Your task to perform on an android device: Go to Google maps Image 0: 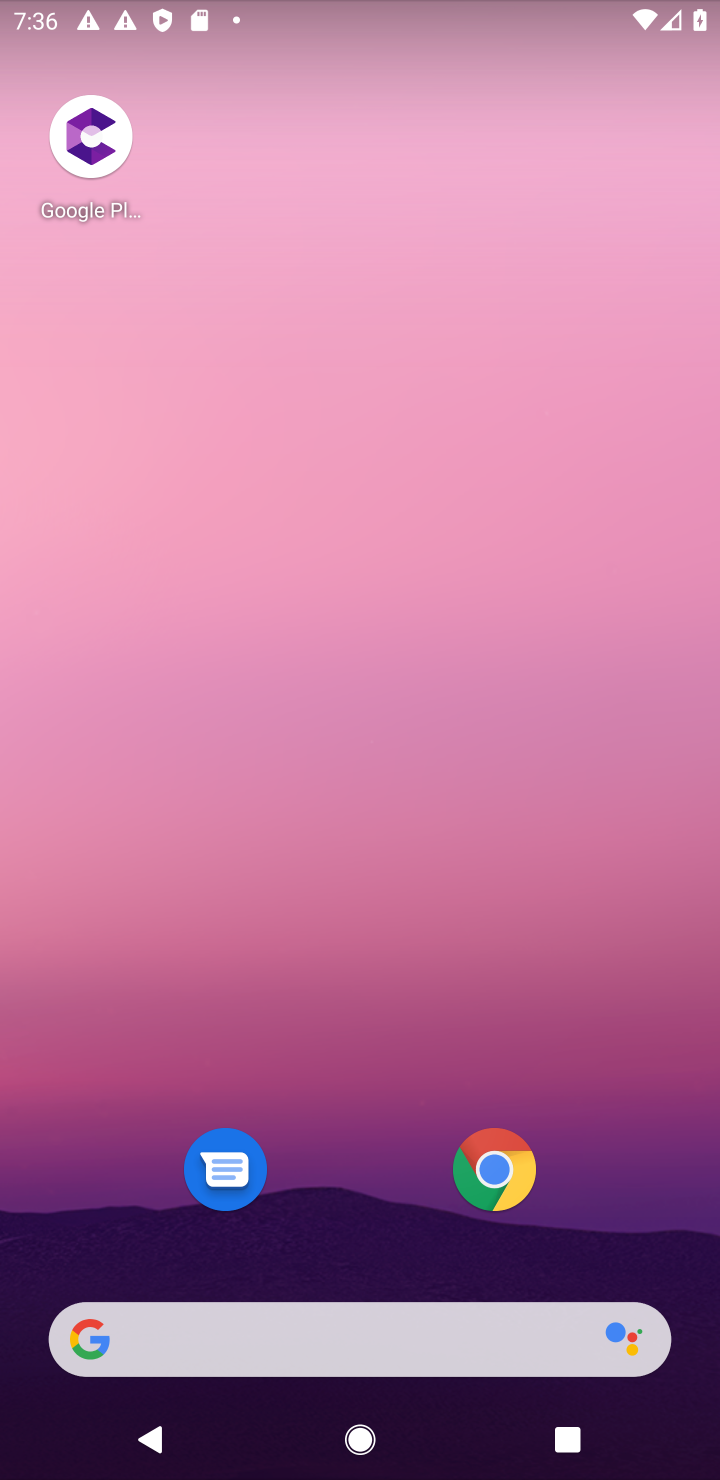
Step 0: drag from (350, 1002) to (339, 62)
Your task to perform on an android device: Go to Google maps Image 1: 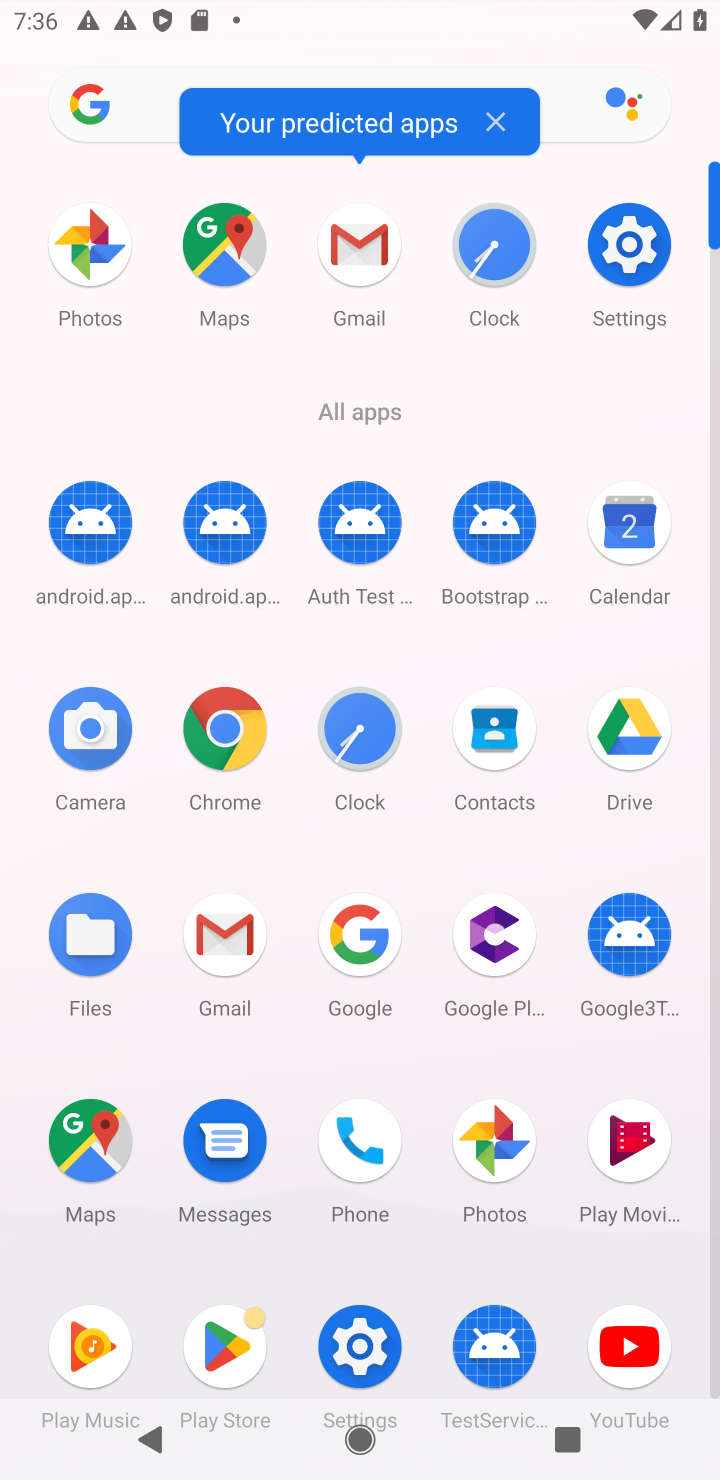
Step 1: click (232, 246)
Your task to perform on an android device: Go to Google maps Image 2: 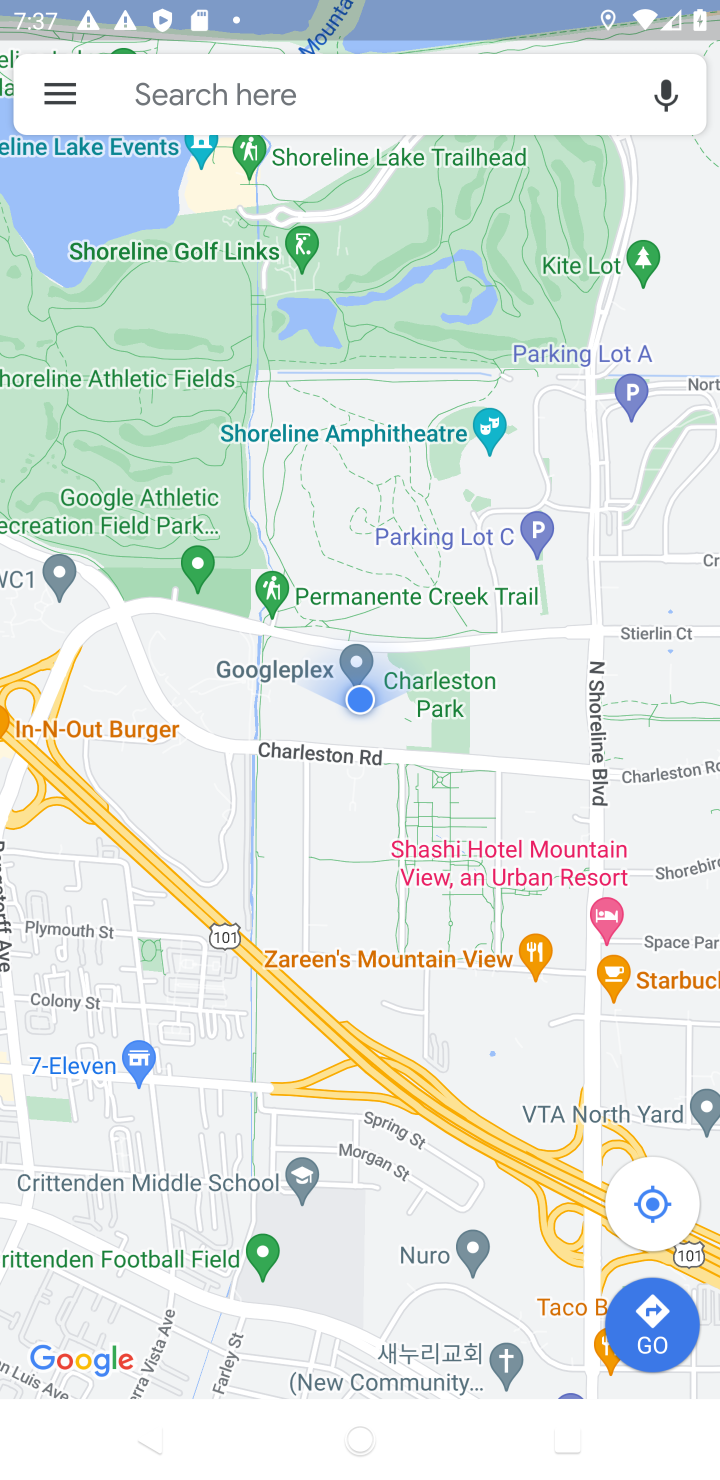
Step 2: task complete